Your task to perform on an android device: toggle notifications settings in the gmail app Image 0: 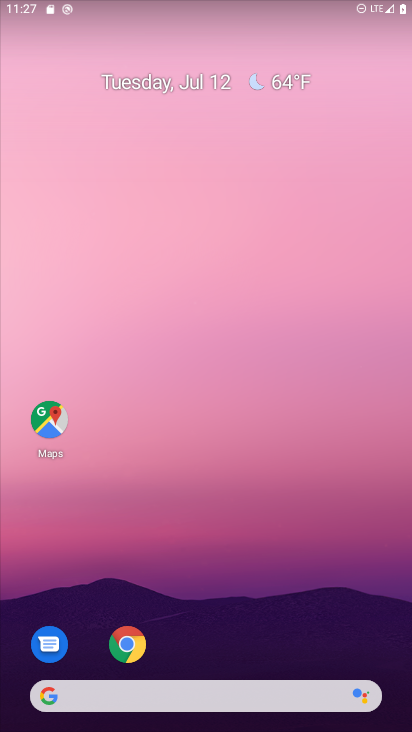
Step 0: drag from (317, 661) to (210, 9)
Your task to perform on an android device: toggle notifications settings in the gmail app Image 1: 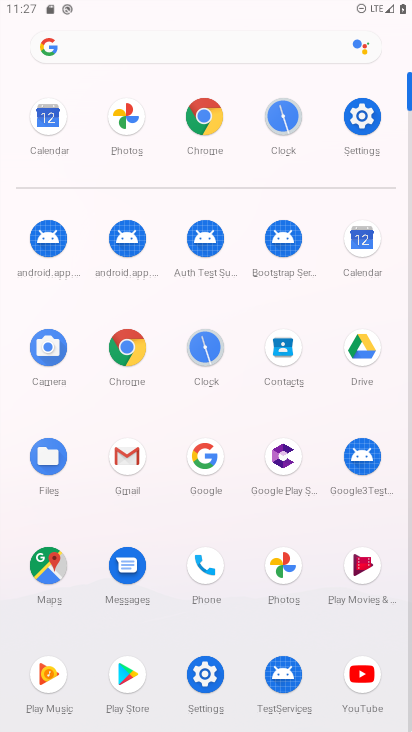
Step 1: click (133, 478)
Your task to perform on an android device: toggle notifications settings in the gmail app Image 2: 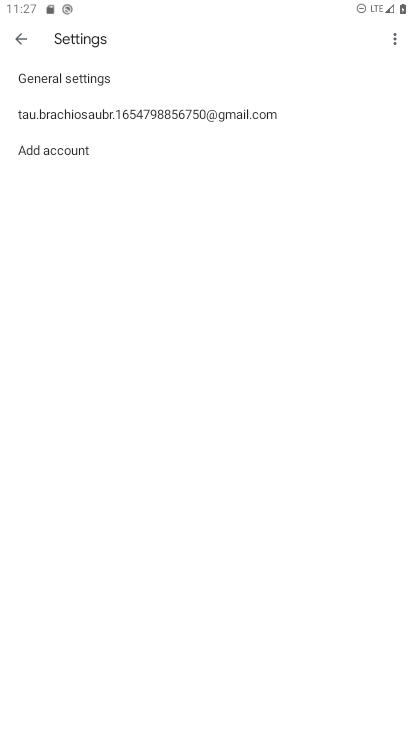
Step 2: click (149, 126)
Your task to perform on an android device: toggle notifications settings in the gmail app Image 3: 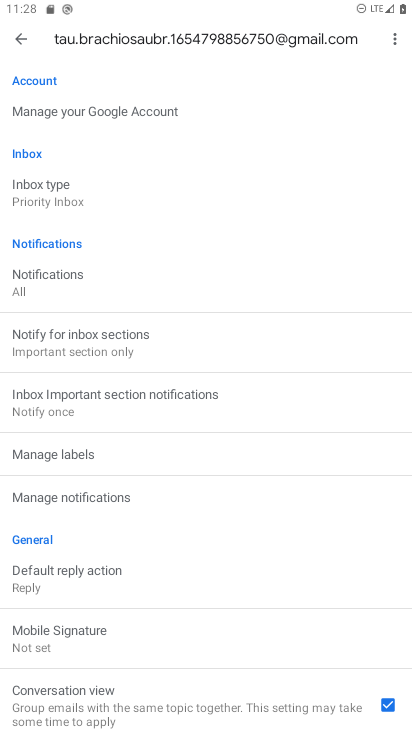
Step 3: click (94, 328)
Your task to perform on an android device: toggle notifications settings in the gmail app Image 4: 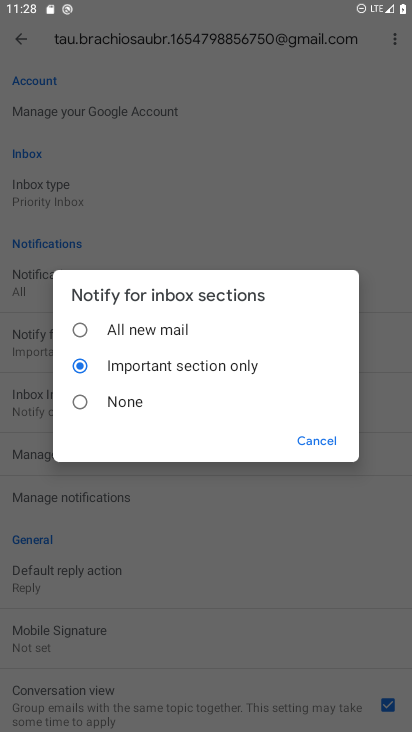
Step 4: click (104, 348)
Your task to perform on an android device: toggle notifications settings in the gmail app Image 5: 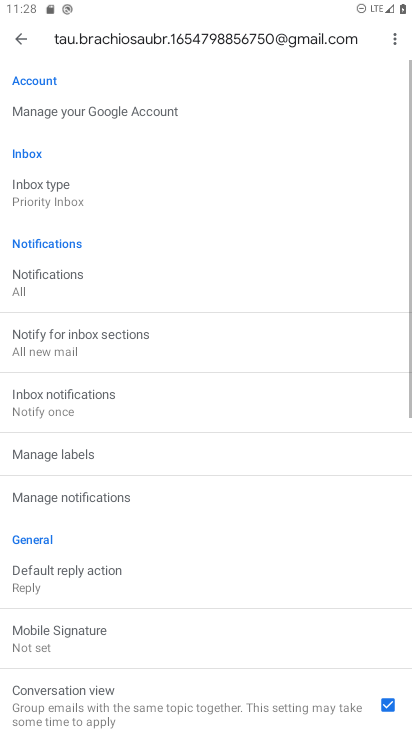
Step 5: task complete